Your task to perform on an android device: open app "WhatsApp Messenger" (install if not already installed) and enter user name: "cartons@outlook.com" and password: "approximated" Image 0: 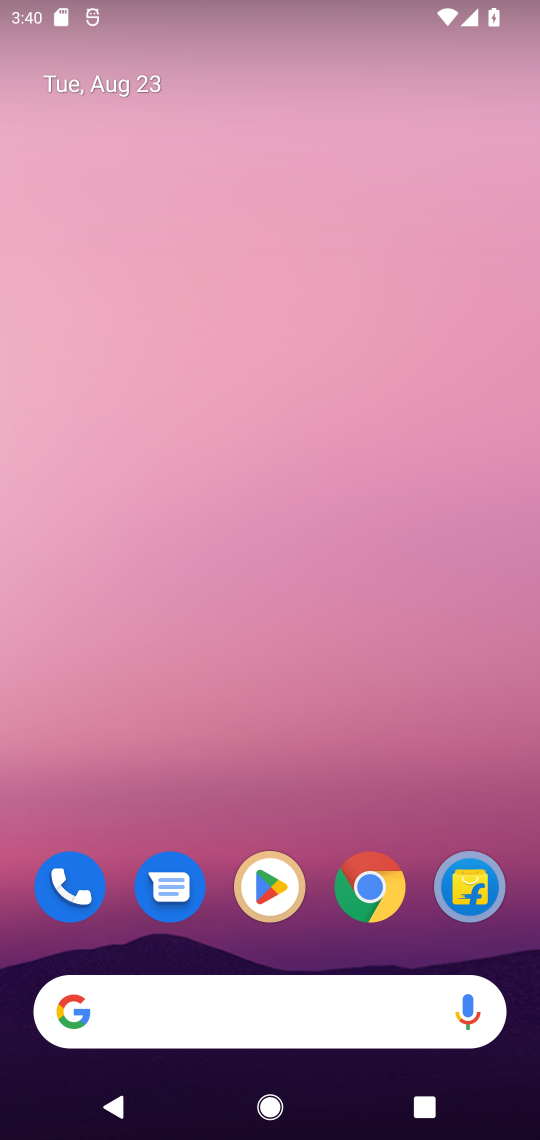
Step 0: click (271, 883)
Your task to perform on an android device: open app "WhatsApp Messenger" (install if not already installed) and enter user name: "cartons@outlook.com" and password: "approximated" Image 1: 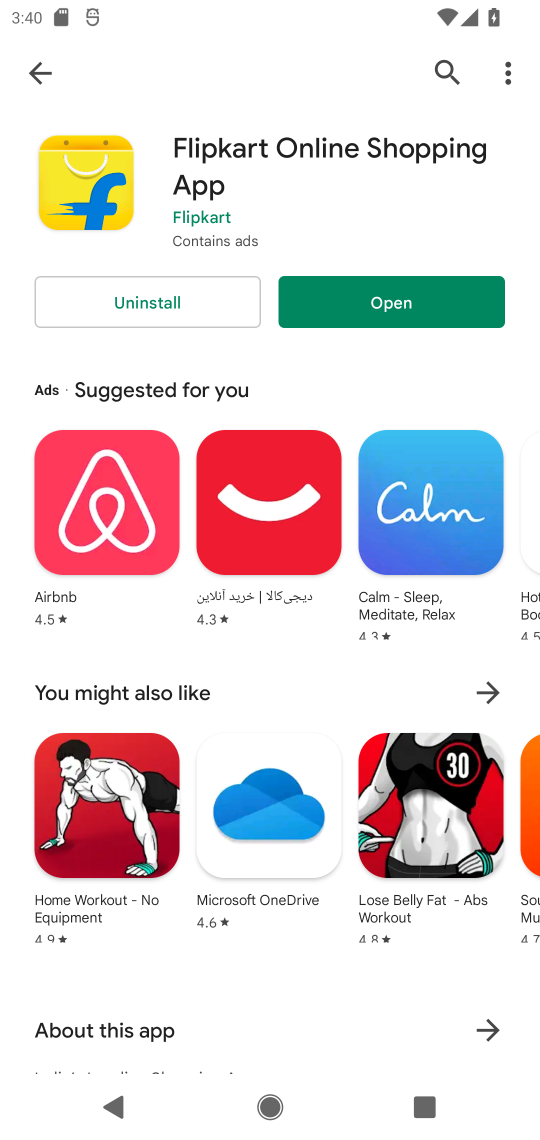
Step 1: click (42, 72)
Your task to perform on an android device: open app "WhatsApp Messenger" (install if not already installed) and enter user name: "cartons@outlook.com" and password: "approximated" Image 2: 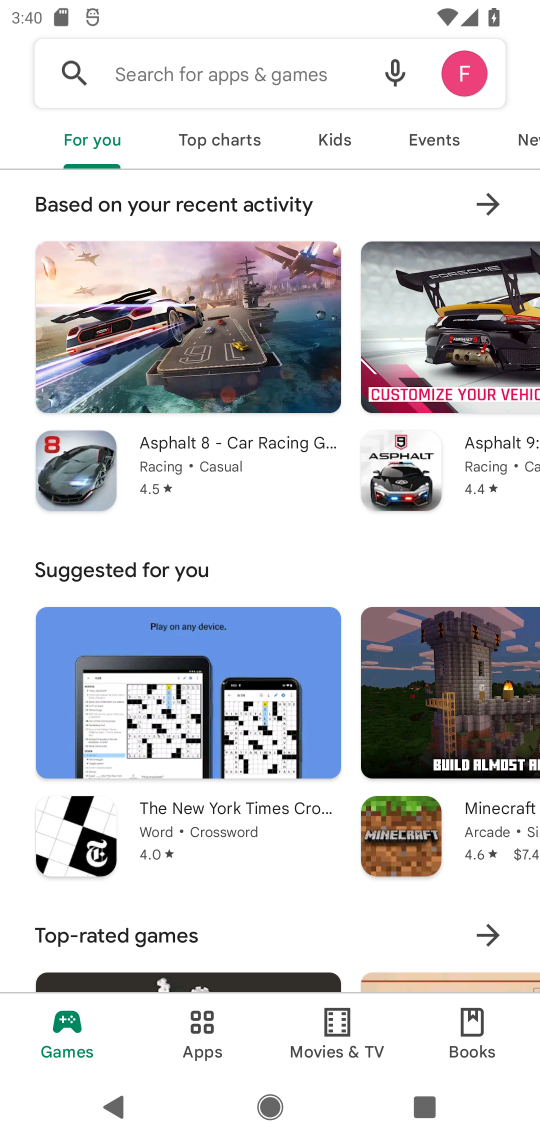
Step 2: click (270, 74)
Your task to perform on an android device: open app "WhatsApp Messenger" (install if not already installed) and enter user name: "cartons@outlook.com" and password: "approximated" Image 3: 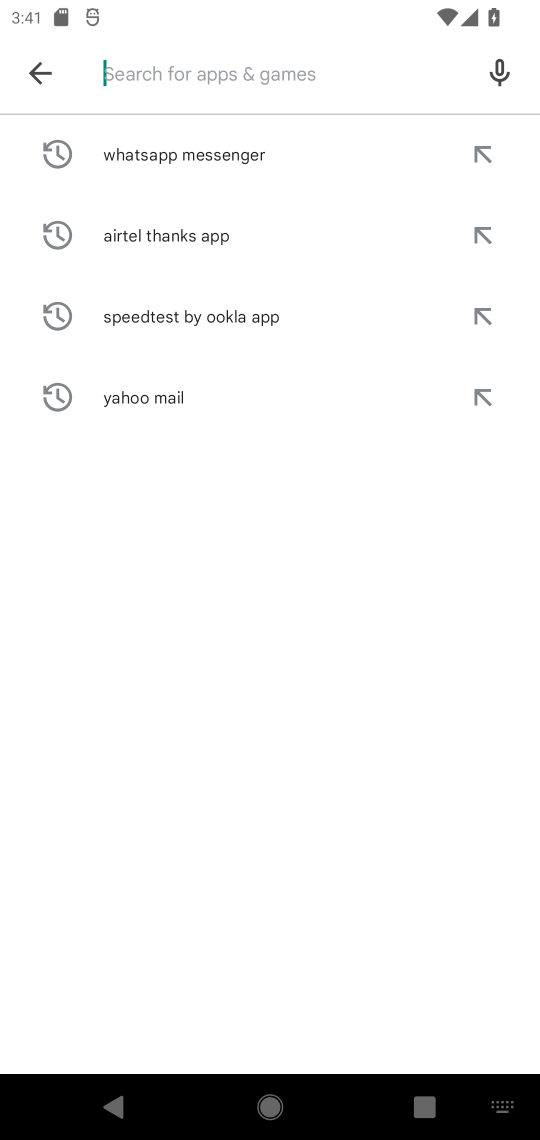
Step 3: type "WhatsApp Messenger"
Your task to perform on an android device: open app "WhatsApp Messenger" (install if not already installed) and enter user name: "cartons@outlook.com" and password: "approximated" Image 4: 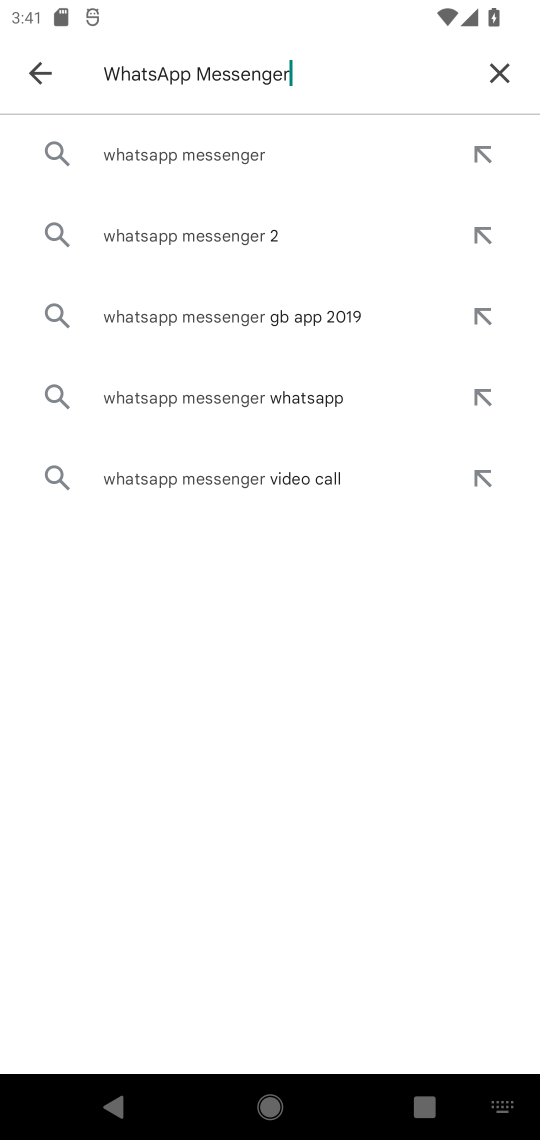
Step 4: click (169, 152)
Your task to perform on an android device: open app "WhatsApp Messenger" (install if not already installed) and enter user name: "cartons@outlook.com" and password: "approximated" Image 5: 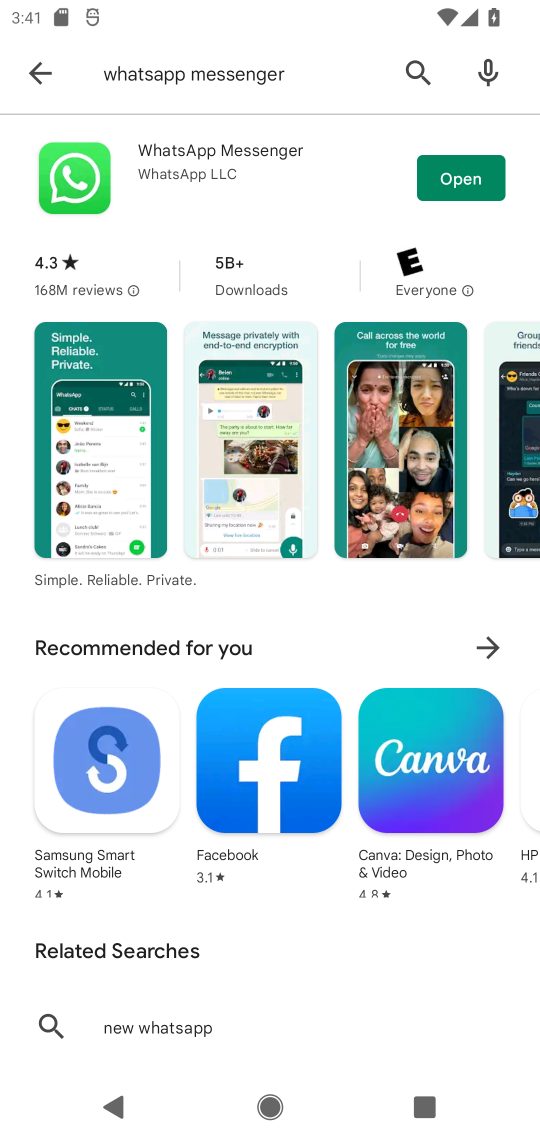
Step 5: click (454, 173)
Your task to perform on an android device: open app "WhatsApp Messenger" (install if not already installed) and enter user name: "cartons@outlook.com" and password: "approximated" Image 6: 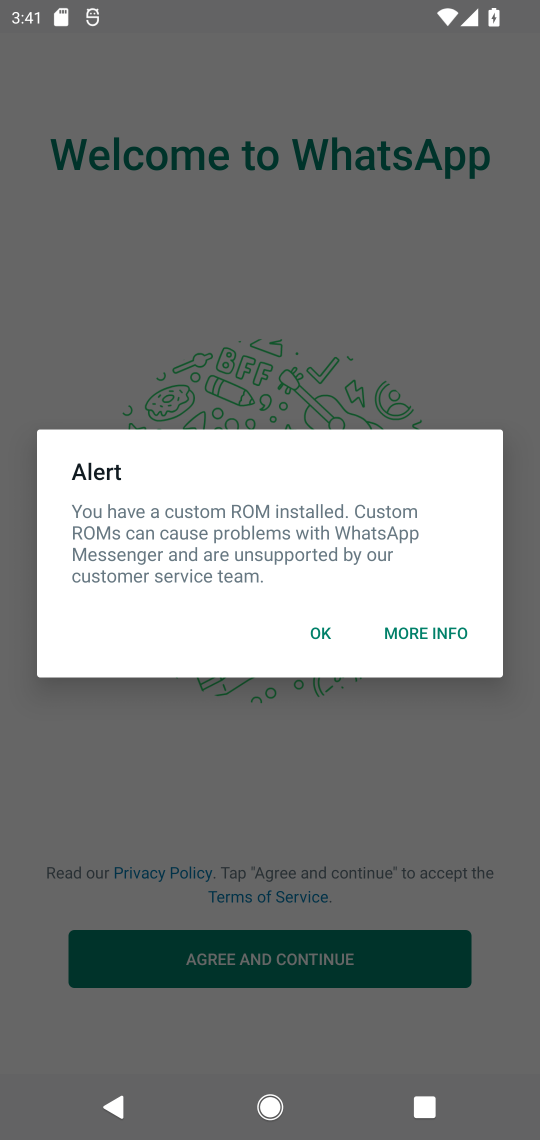
Step 6: click (315, 637)
Your task to perform on an android device: open app "WhatsApp Messenger" (install if not already installed) and enter user name: "cartons@outlook.com" and password: "approximated" Image 7: 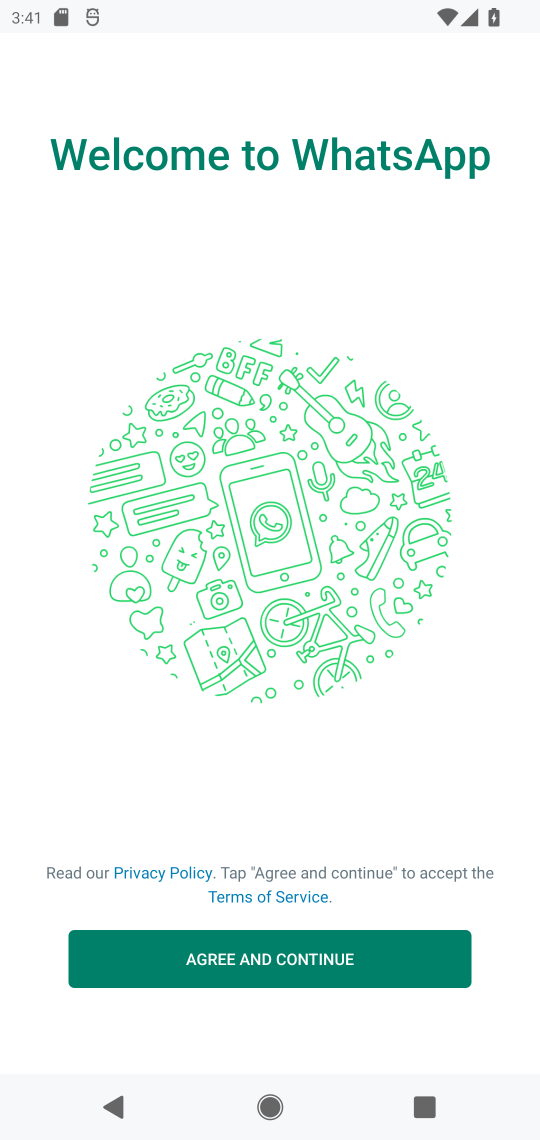
Step 7: task complete